Your task to perform on an android device: Open ESPN.com Image 0: 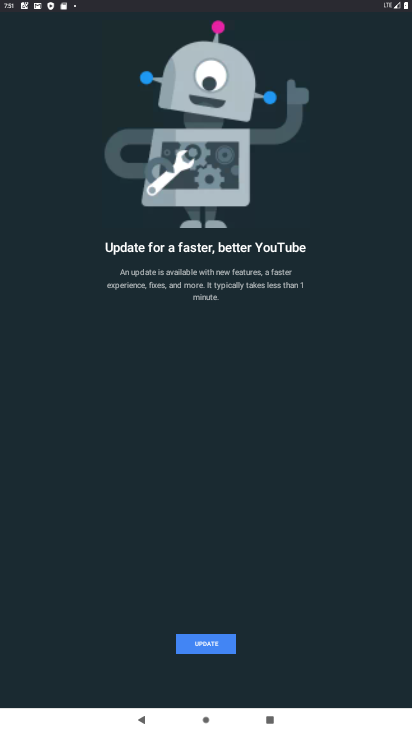
Step 0: press home button
Your task to perform on an android device: Open ESPN.com Image 1: 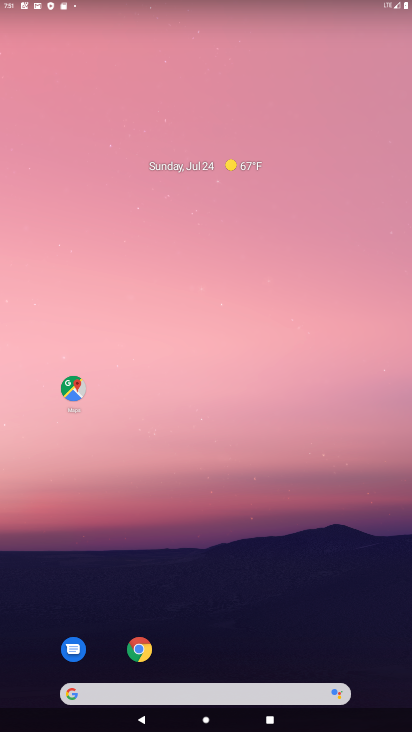
Step 1: click (115, 642)
Your task to perform on an android device: Open ESPN.com Image 2: 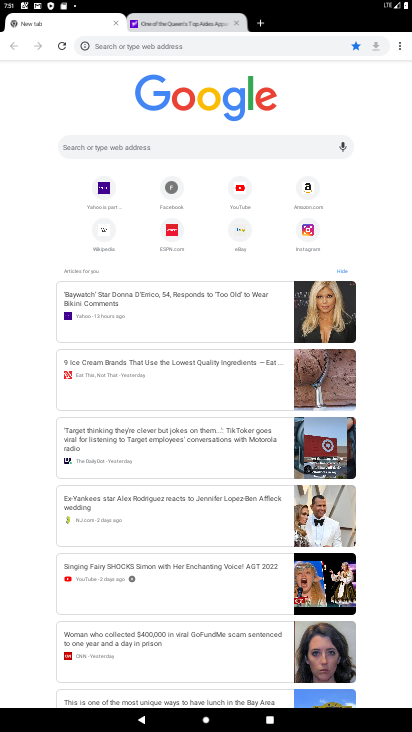
Step 2: click (167, 222)
Your task to perform on an android device: Open ESPN.com Image 3: 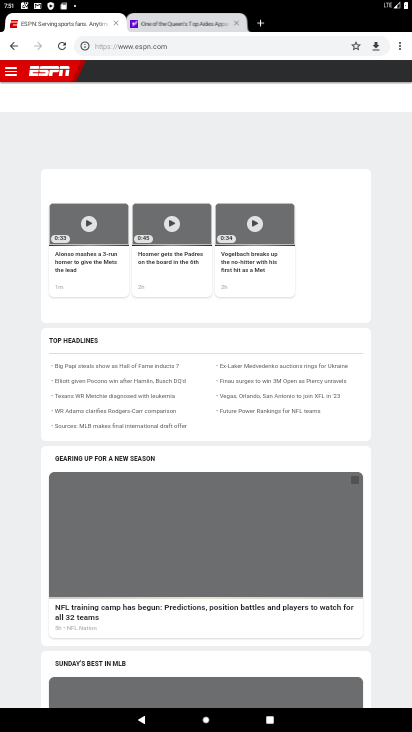
Step 3: task complete